Your task to perform on an android device: check out phone information Image 0: 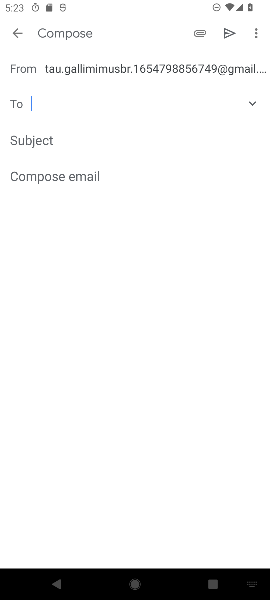
Step 0: press home button
Your task to perform on an android device: check out phone information Image 1: 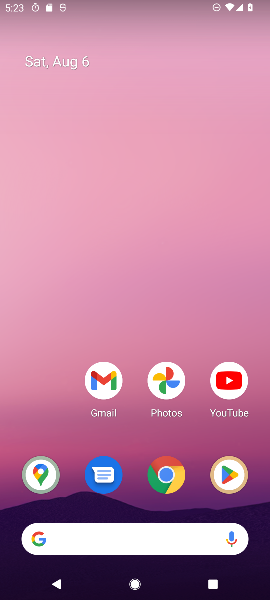
Step 1: drag from (28, 573) to (117, 274)
Your task to perform on an android device: check out phone information Image 2: 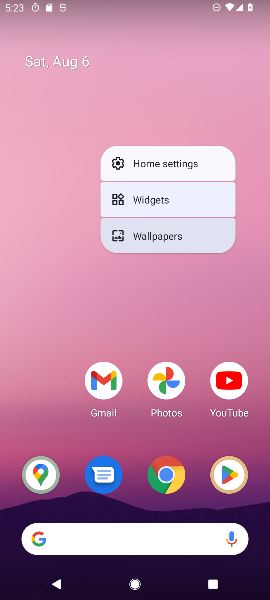
Step 2: drag from (35, 571) to (97, 224)
Your task to perform on an android device: check out phone information Image 3: 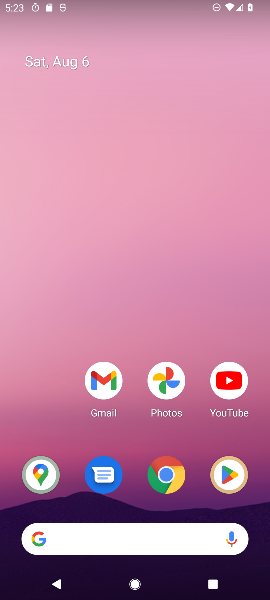
Step 3: drag from (28, 558) to (97, 270)
Your task to perform on an android device: check out phone information Image 4: 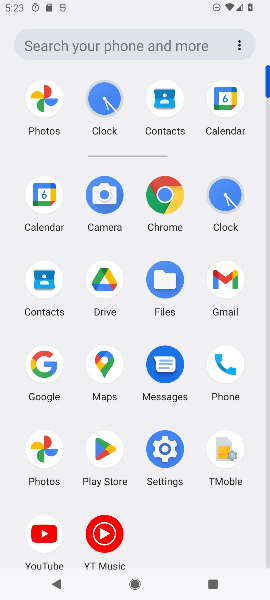
Step 4: click (237, 368)
Your task to perform on an android device: check out phone information Image 5: 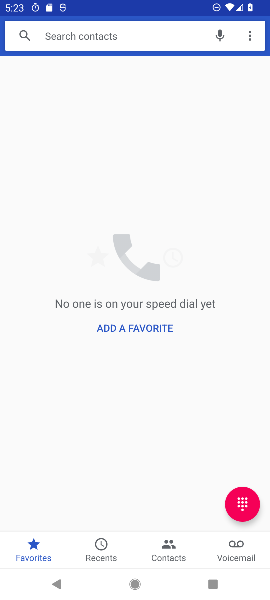
Step 5: task complete